Your task to perform on an android device: Search for the best selling TV on Best Buy. Image 0: 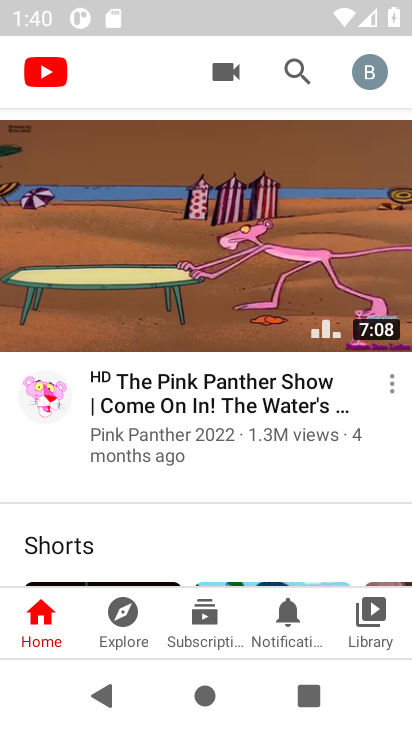
Step 0: press home button
Your task to perform on an android device: Search for the best selling TV on Best Buy. Image 1: 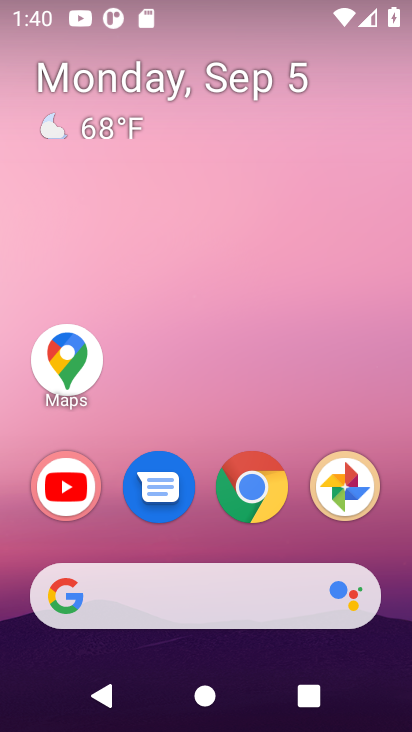
Step 1: click (252, 477)
Your task to perform on an android device: Search for the best selling TV on Best Buy. Image 2: 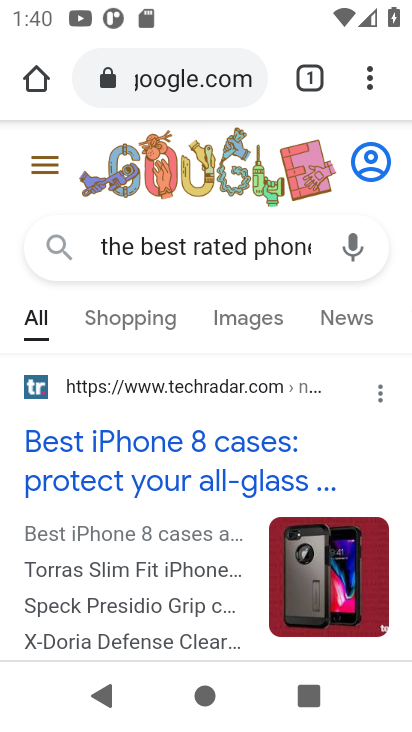
Step 2: click (160, 80)
Your task to perform on an android device: Search for the best selling TV on Best Buy. Image 3: 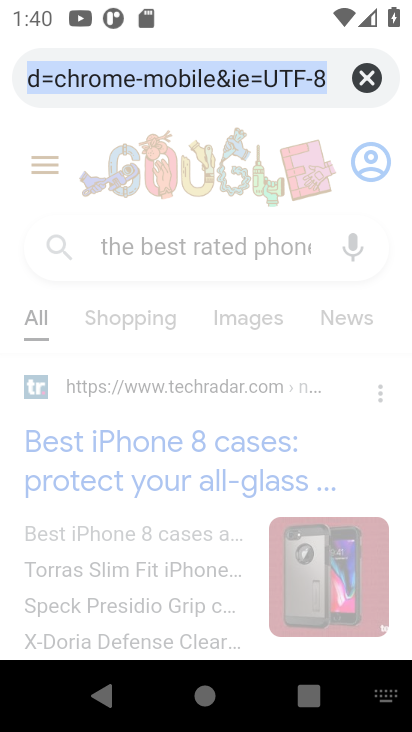
Step 3: click (361, 81)
Your task to perform on an android device: Search for the best selling TV on Best Buy. Image 4: 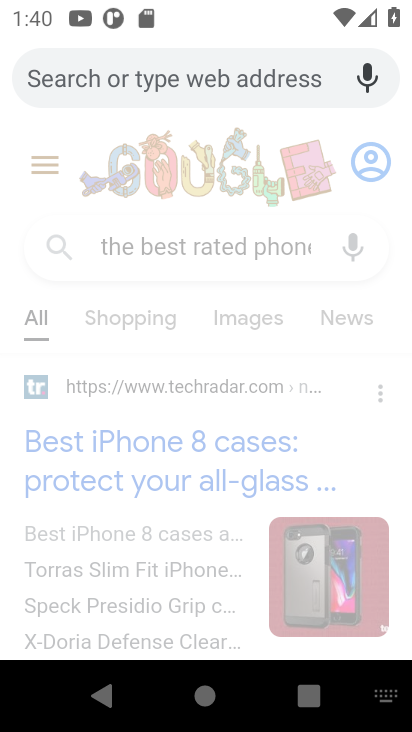
Step 4: type "the best selling TV on Best Buy."
Your task to perform on an android device: Search for the best selling TV on Best Buy. Image 5: 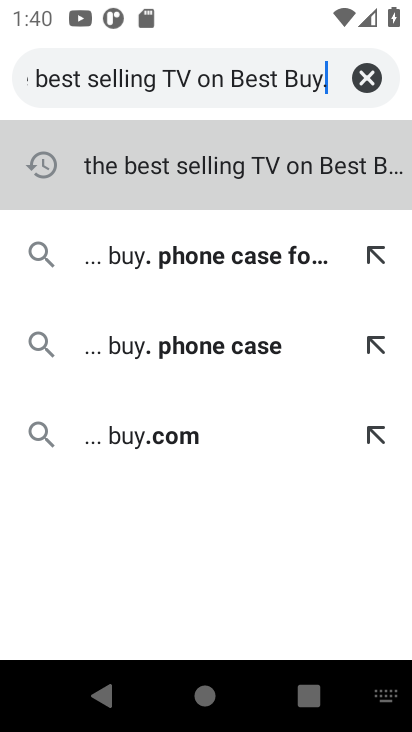
Step 5: click (243, 152)
Your task to perform on an android device: Search for the best selling TV on Best Buy. Image 6: 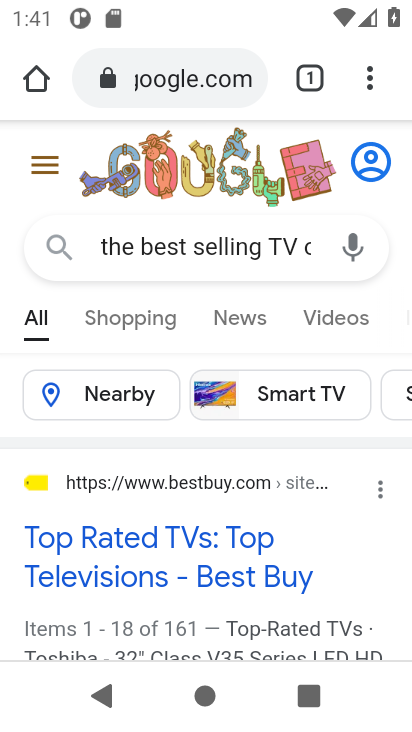
Step 6: task complete